Your task to perform on an android device: Do I have any events this weekend? Image 0: 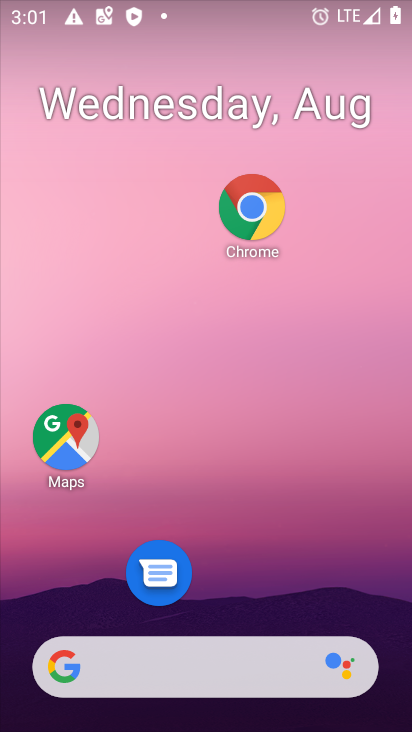
Step 0: drag from (184, 624) to (148, 327)
Your task to perform on an android device: Do I have any events this weekend? Image 1: 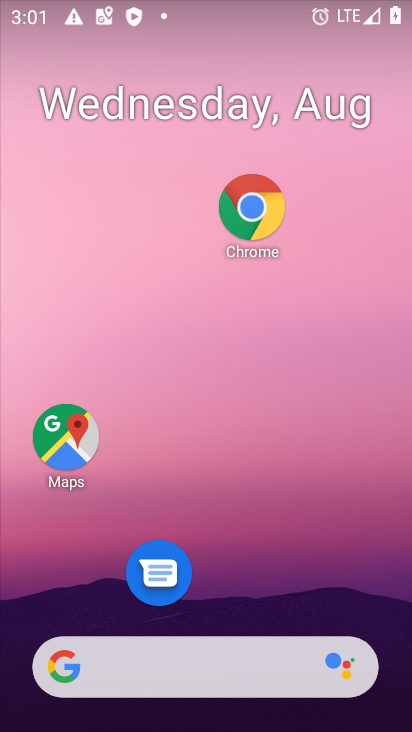
Step 1: drag from (291, 630) to (267, 205)
Your task to perform on an android device: Do I have any events this weekend? Image 2: 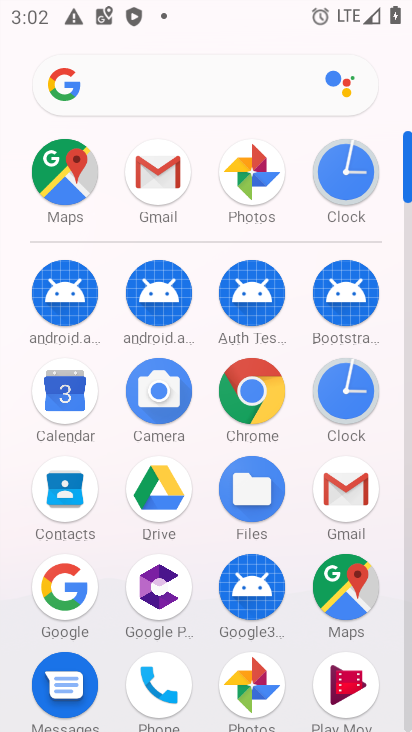
Step 2: click (77, 401)
Your task to perform on an android device: Do I have any events this weekend? Image 3: 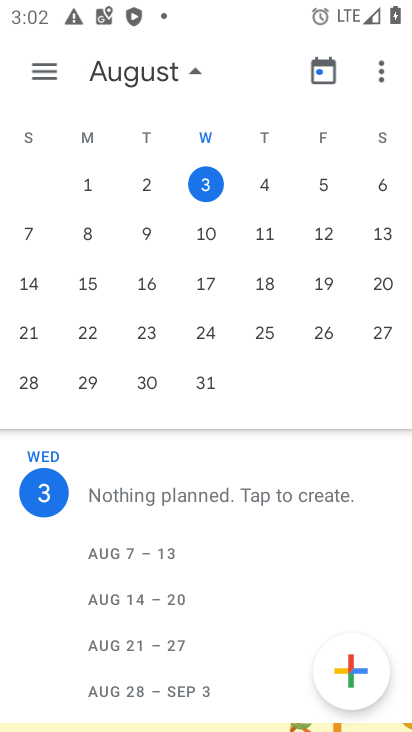
Step 3: click (377, 188)
Your task to perform on an android device: Do I have any events this weekend? Image 4: 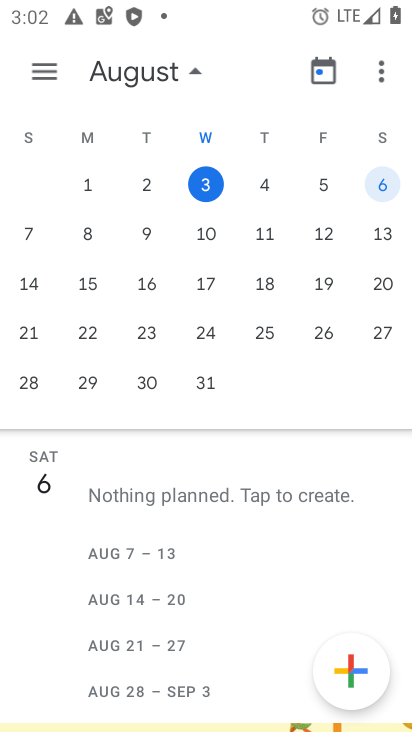
Step 4: task complete